Your task to perform on an android device: open chrome and create a bookmark for the current page Image 0: 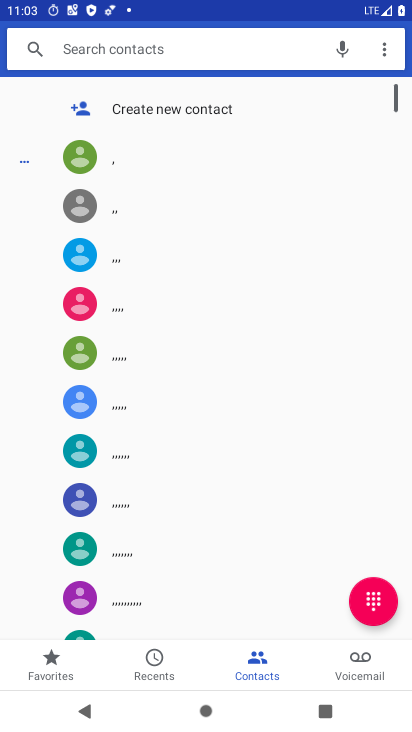
Step 0: press home button
Your task to perform on an android device: open chrome and create a bookmark for the current page Image 1: 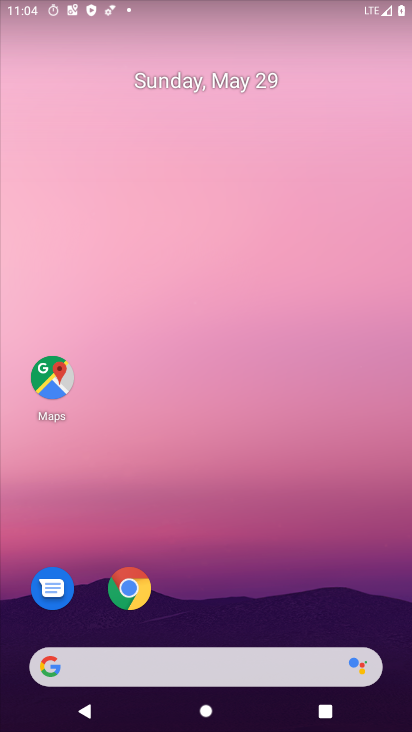
Step 1: drag from (398, 731) to (318, 168)
Your task to perform on an android device: open chrome and create a bookmark for the current page Image 2: 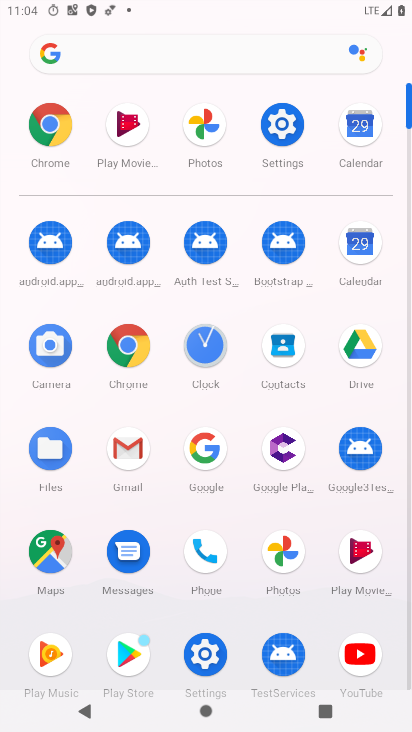
Step 2: click (119, 353)
Your task to perform on an android device: open chrome and create a bookmark for the current page Image 3: 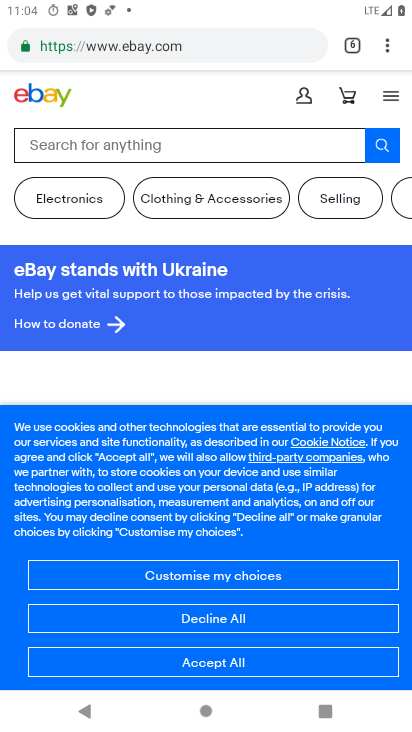
Step 3: click (389, 44)
Your task to perform on an android device: open chrome and create a bookmark for the current page Image 4: 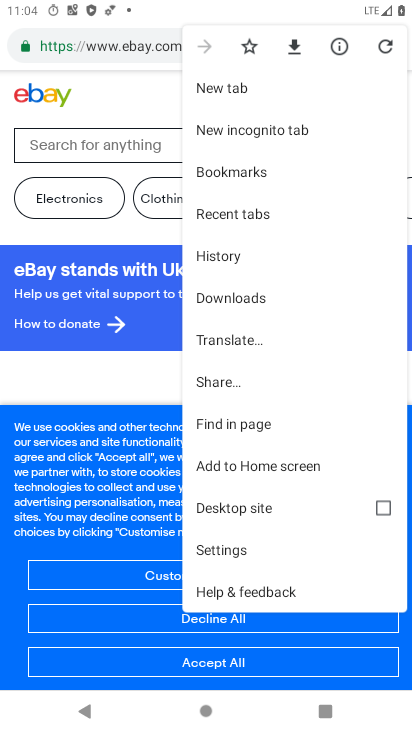
Step 4: click (248, 48)
Your task to perform on an android device: open chrome and create a bookmark for the current page Image 5: 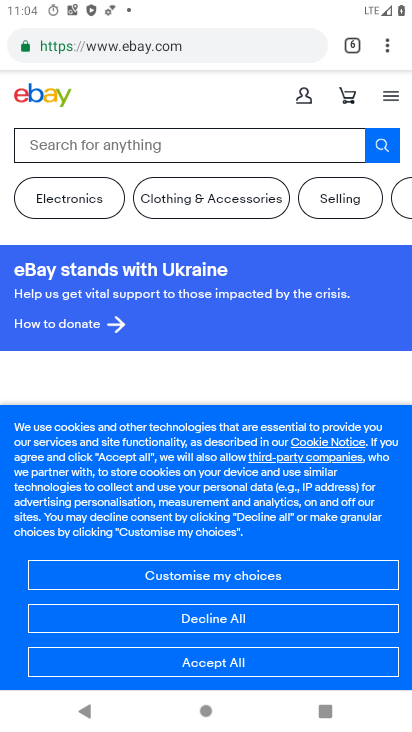
Step 5: task complete